Your task to perform on an android device: turn smart compose on in the gmail app Image 0: 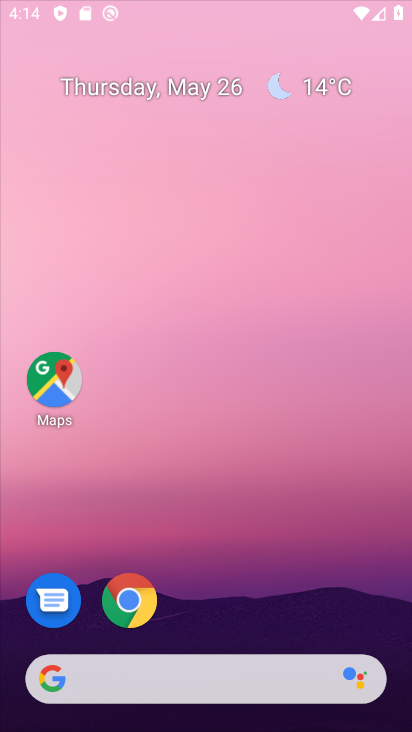
Step 0: click (228, 105)
Your task to perform on an android device: turn smart compose on in the gmail app Image 1: 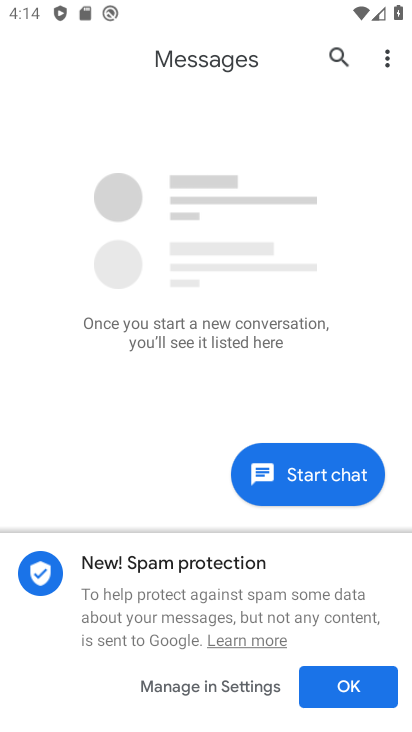
Step 1: press home button
Your task to perform on an android device: turn smart compose on in the gmail app Image 2: 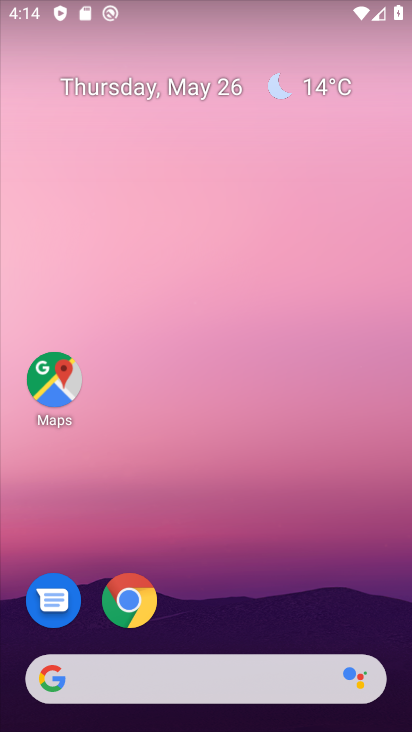
Step 2: drag from (214, 645) to (311, 43)
Your task to perform on an android device: turn smart compose on in the gmail app Image 3: 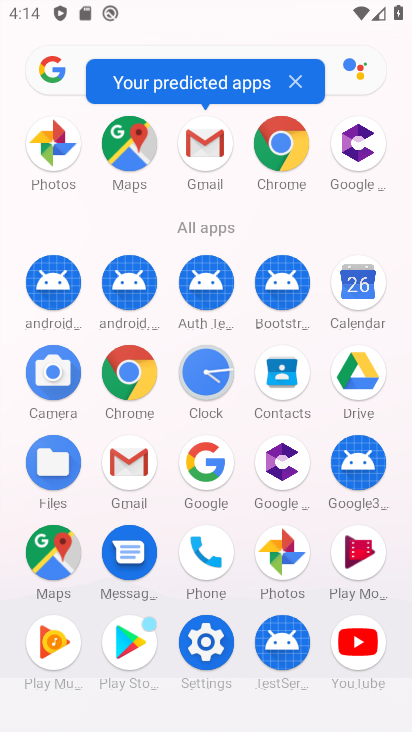
Step 3: drag from (242, 639) to (189, 157)
Your task to perform on an android device: turn smart compose on in the gmail app Image 4: 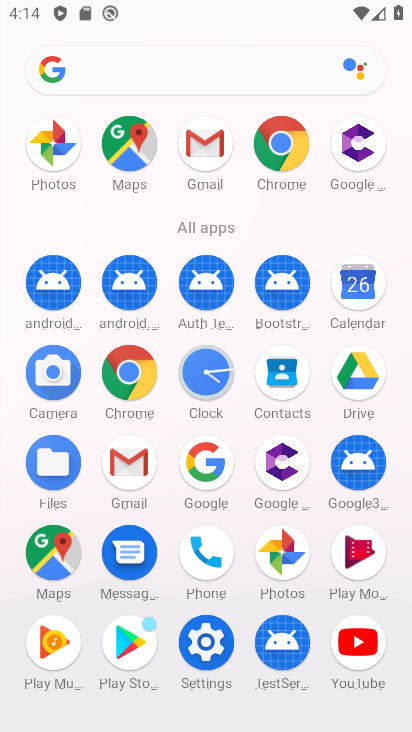
Step 4: click (208, 161)
Your task to perform on an android device: turn smart compose on in the gmail app Image 5: 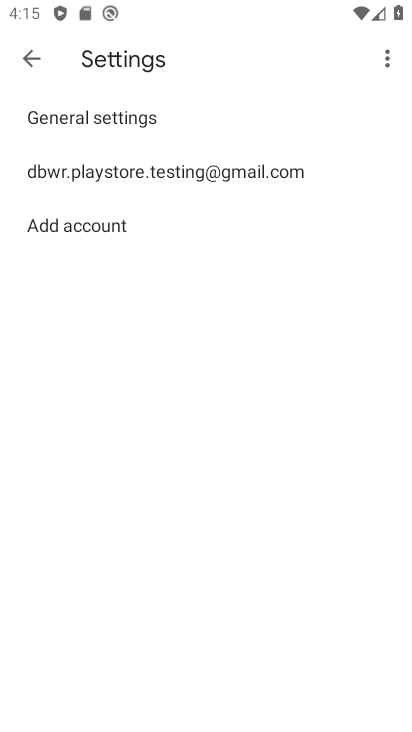
Step 5: click (208, 161)
Your task to perform on an android device: turn smart compose on in the gmail app Image 6: 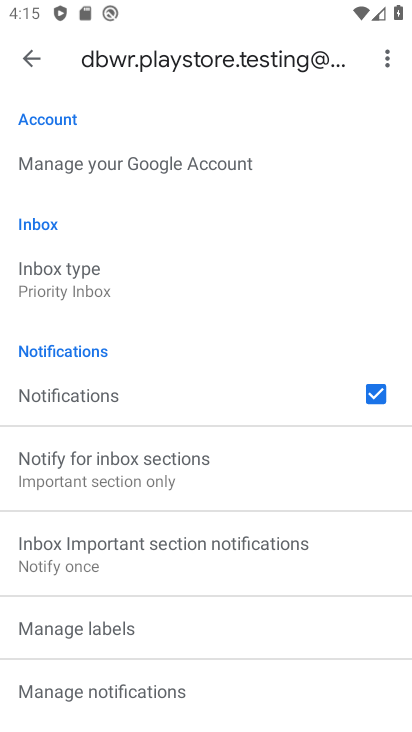
Step 6: task complete